Your task to perform on an android device: open a new tab in the chrome app Image 0: 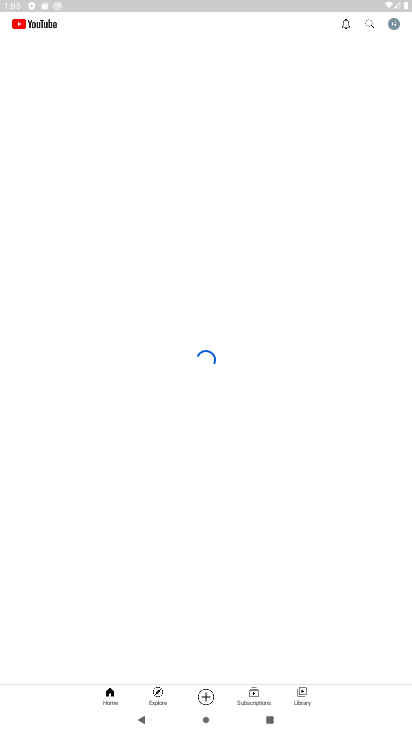
Step 0: press home button
Your task to perform on an android device: open a new tab in the chrome app Image 1: 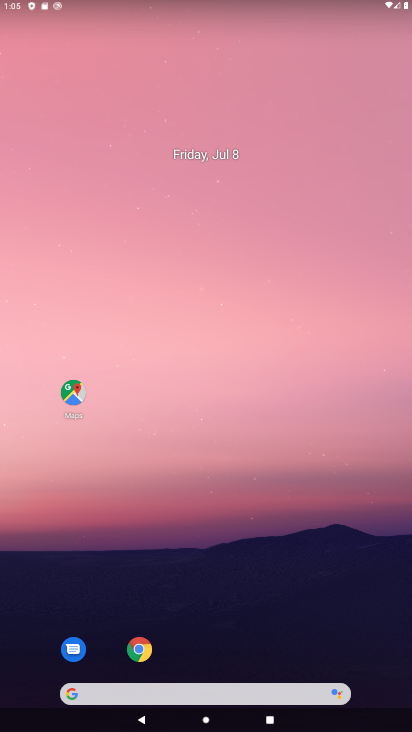
Step 1: drag from (309, 625) to (332, 139)
Your task to perform on an android device: open a new tab in the chrome app Image 2: 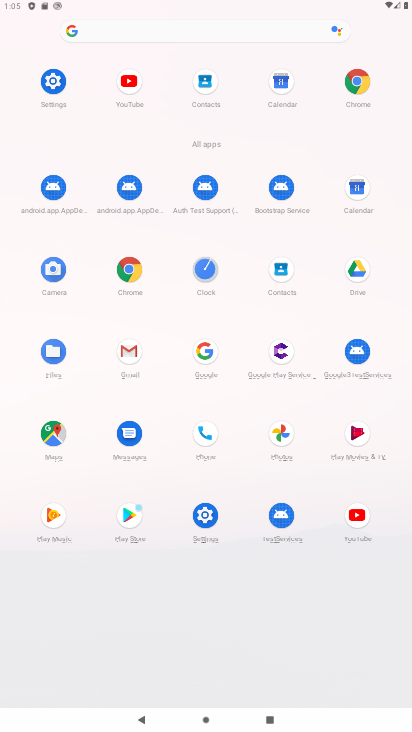
Step 2: click (131, 271)
Your task to perform on an android device: open a new tab in the chrome app Image 3: 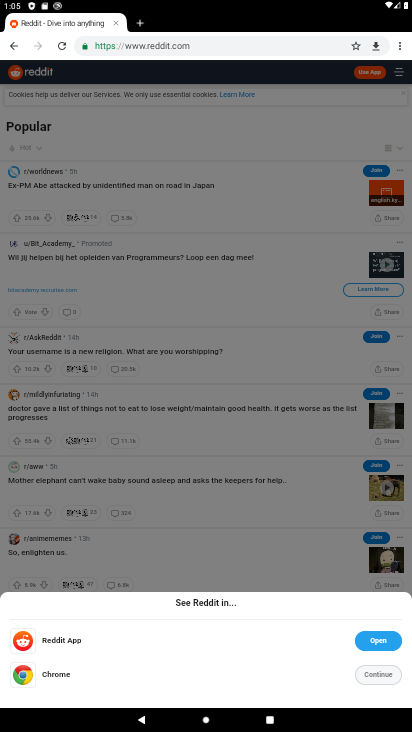
Step 3: task complete